Your task to perform on an android device: Open Google Chrome Image 0: 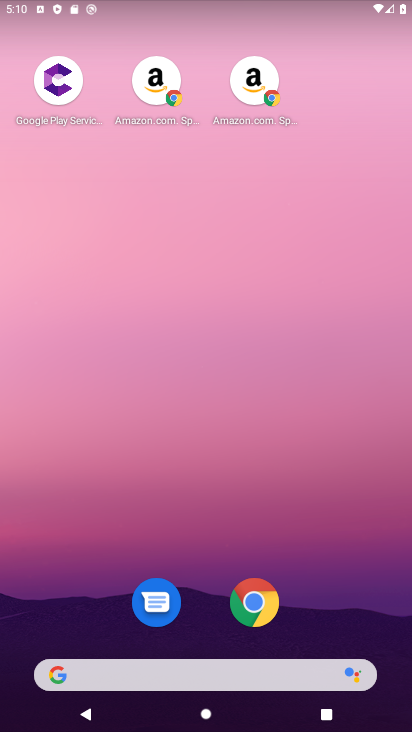
Step 0: drag from (250, 612) to (217, 163)
Your task to perform on an android device: Open Google Chrome Image 1: 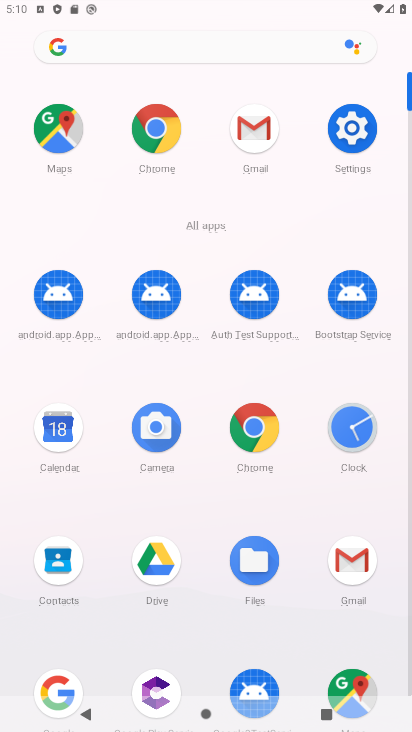
Step 1: click (257, 416)
Your task to perform on an android device: Open Google Chrome Image 2: 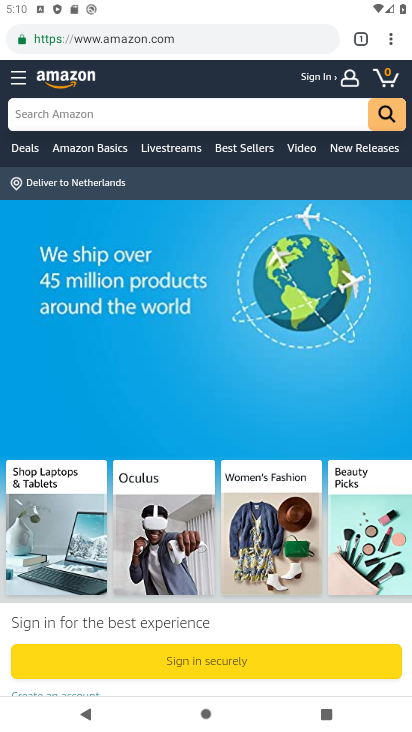
Step 2: task complete